Your task to perform on an android device: toggle airplane mode Image 0: 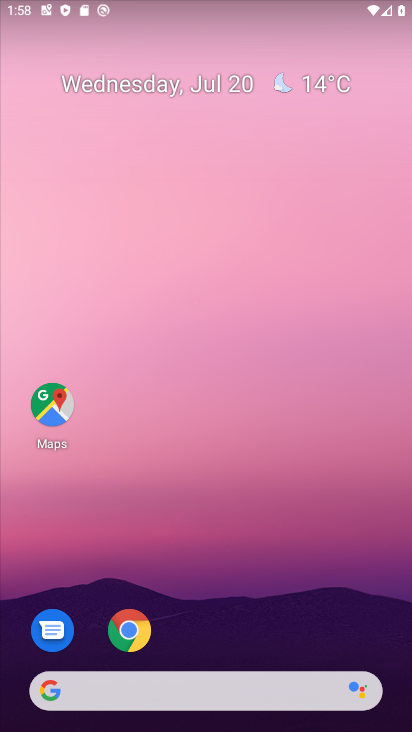
Step 0: press home button
Your task to perform on an android device: toggle airplane mode Image 1: 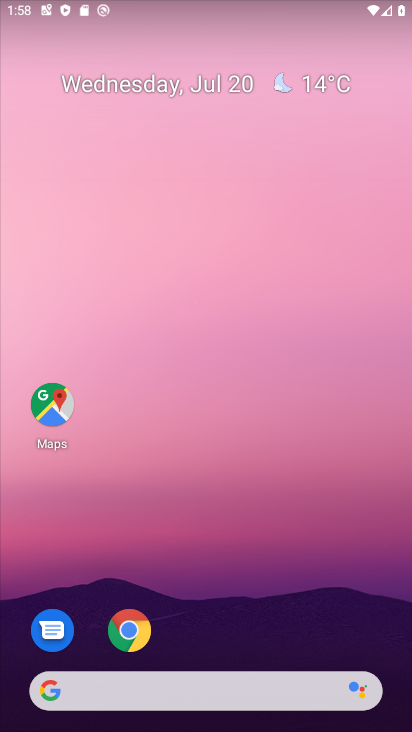
Step 1: drag from (302, 664) to (370, 158)
Your task to perform on an android device: toggle airplane mode Image 2: 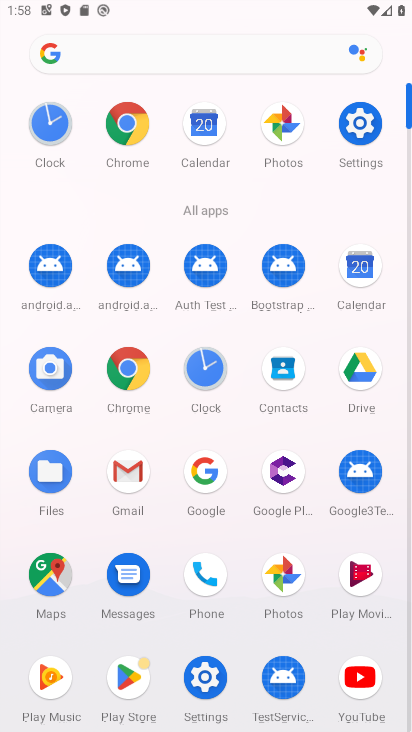
Step 2: click (370, 113)
Your task to perform on an android device: toggle airplane mode Image 3: 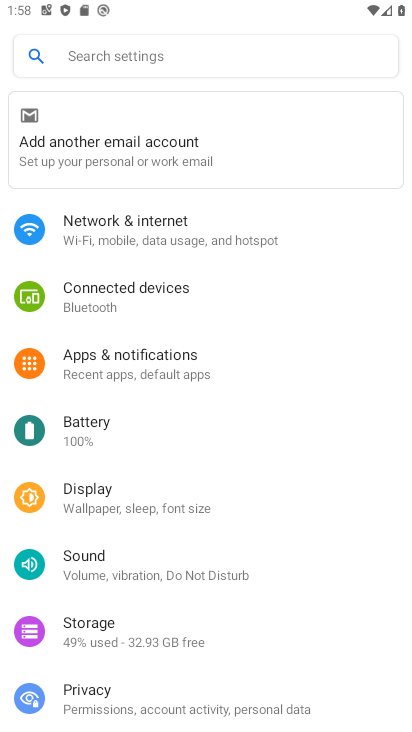
Step 3: click (99, 236)
Your task to perform on an android device: toggle airplane mode Image 4: 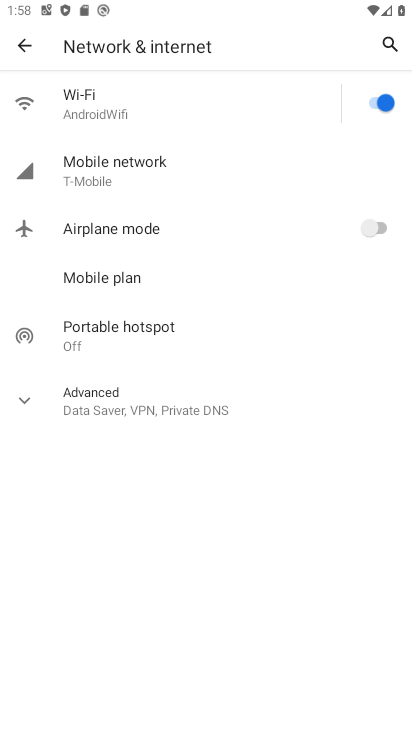
Step 4: click (237, 564)
Your task to perform on an android device: toggle airplane mode Image 5: 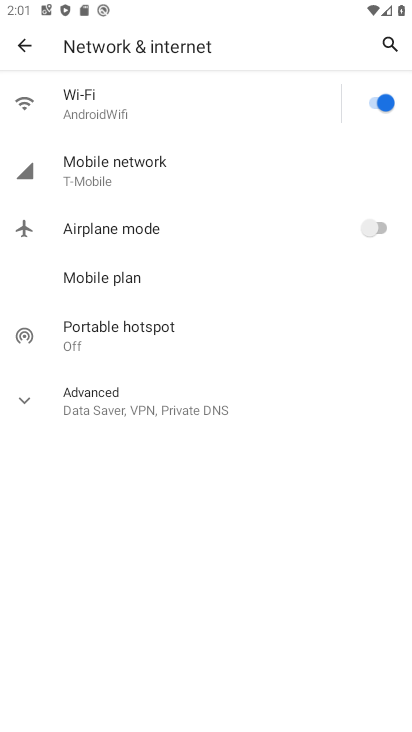
Step 5: task complete